Your task to perform on an android device: Open sound settings Image 0: 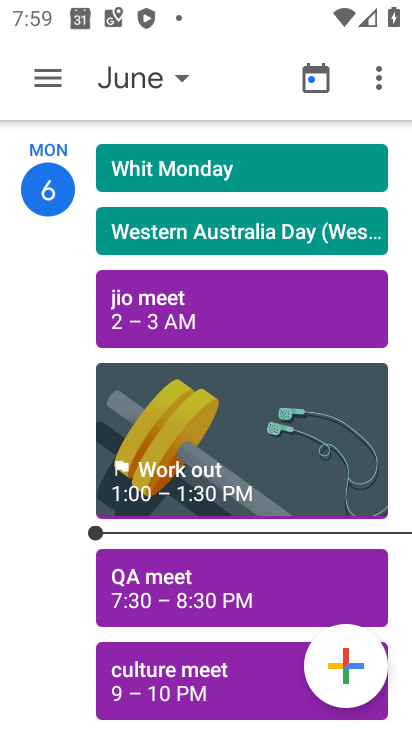
Step 0: press home button
Your task to perform on an android device: Open sound settings Image 1: 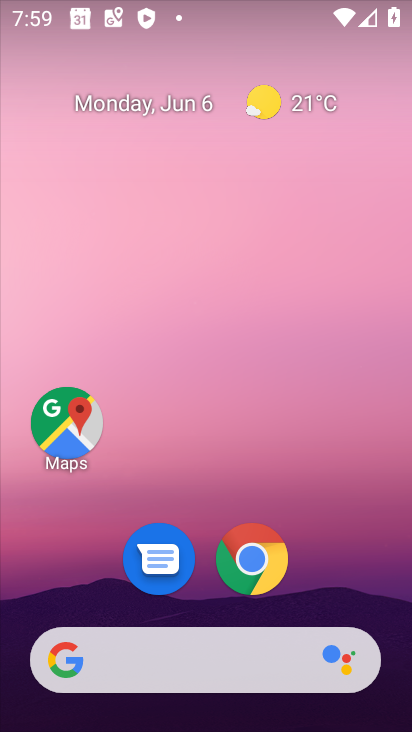
Step 1: drag from (227, 723) to (215, 173)
Your task to perform on an android device: Open sound settings Image 2: 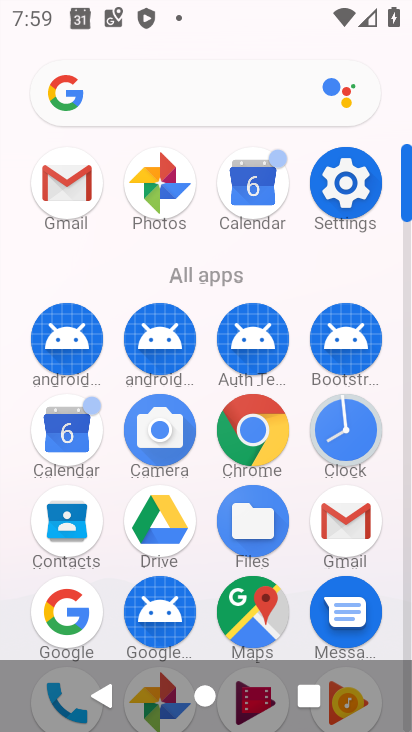
Step 2: click (363, 187)
Your task to perform on an android device: Open sound settings Image 3: 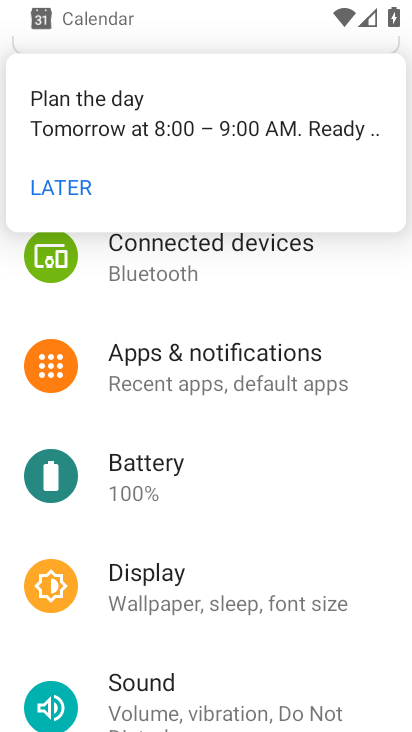
Step 3: click (161, 695)
Your task to perform on an android device: Open sound settings Image 4: 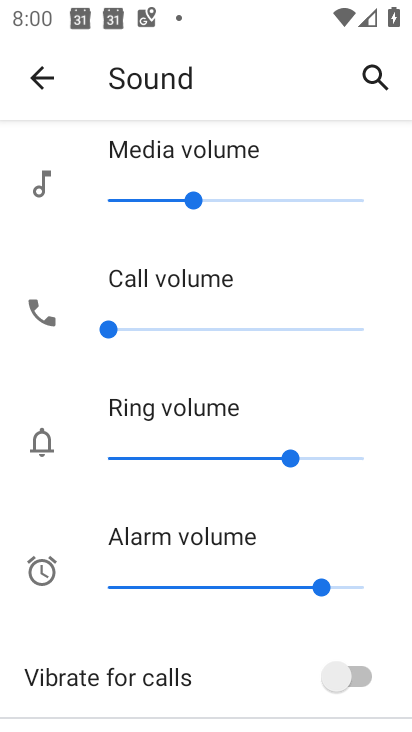
Step 4: task complete